Your task to perform on an android device: Go to accessibility settings Image 0: 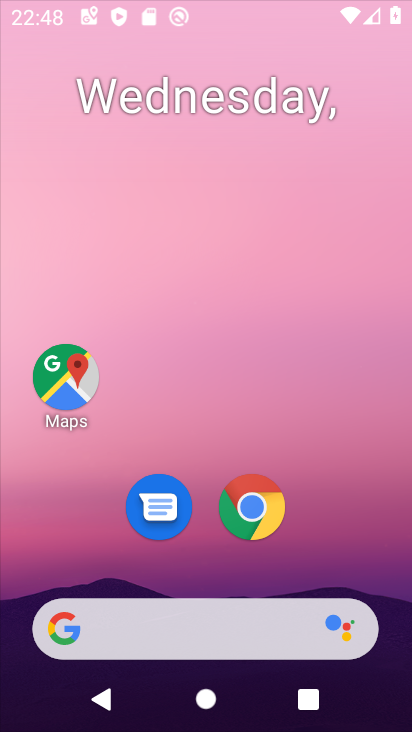
Step 0: click (330, 291)
Your task to perform on an android device: Go to accessibility settings Image 1: 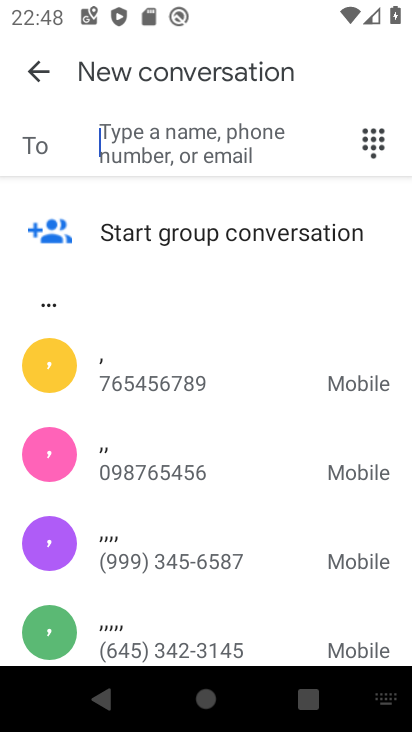
Step 1: press home button
Your task to perform on an android device: Go to accessibility settings Image 2: 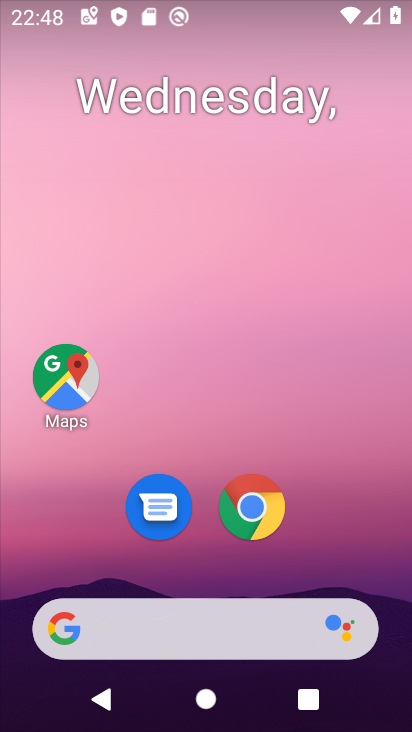
Step 2: drag from (300, 492) to (302, 249)
Your task to perform on an android device: Go to accessibility settings Image 3: 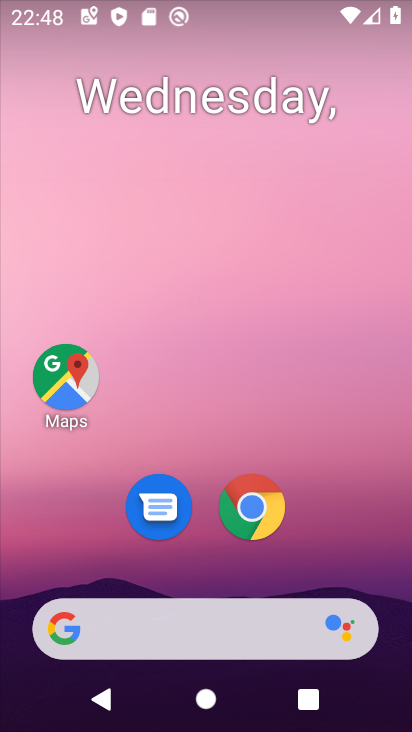
Step 3: drag from (259, 460) to (277, 244)
Your task to perform on an android device: Go to accessibility settings Image 4: 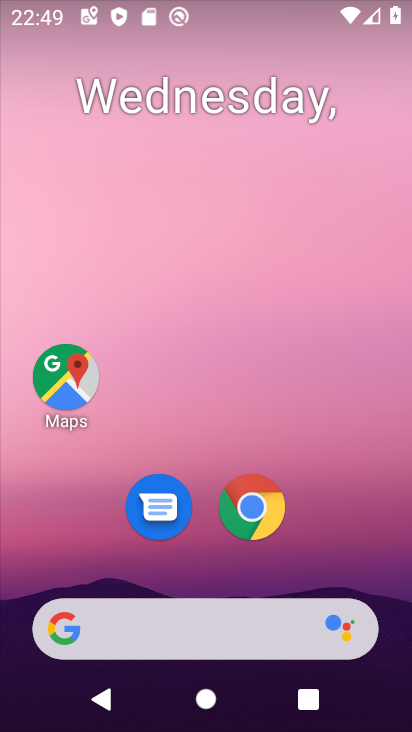
Step 4: drag from (220, 547) to (220, 301)
Your task to perform on an android device: Go to accessibility settings Image 5: 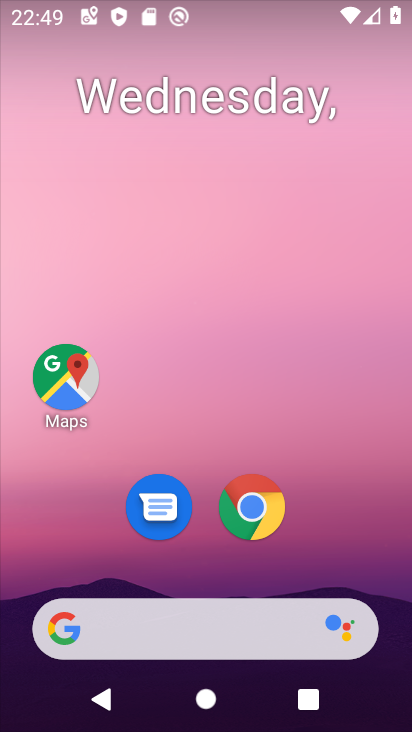
Step 5: drag from (194, 442) to (206, 288)
Your task to perform on an android device: Go to accessibility settings Image 6: 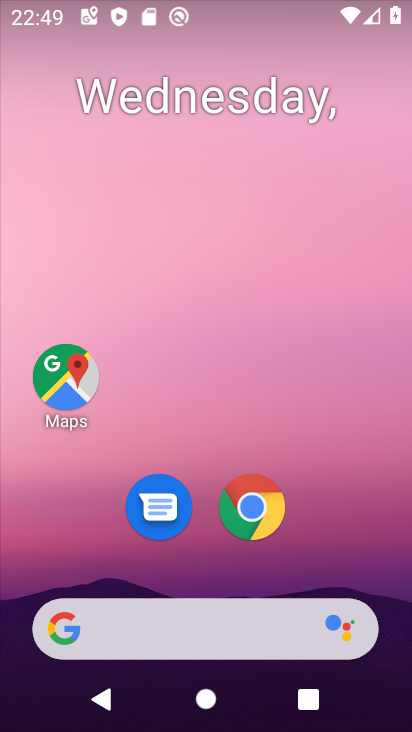
Step 6: drag from (215, 651) to (233, 284)
Your task to perform on an android device: Go to accessibility settings Image 7: 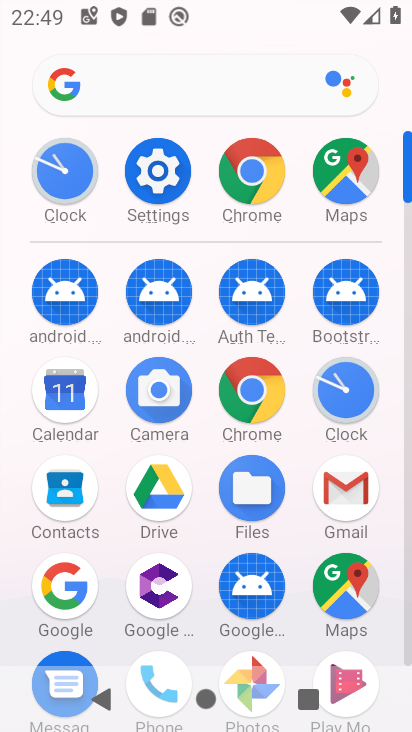
Step 7: click (162, 155)
Your task to perform on an android device: Go to accessibility settings Image 8: 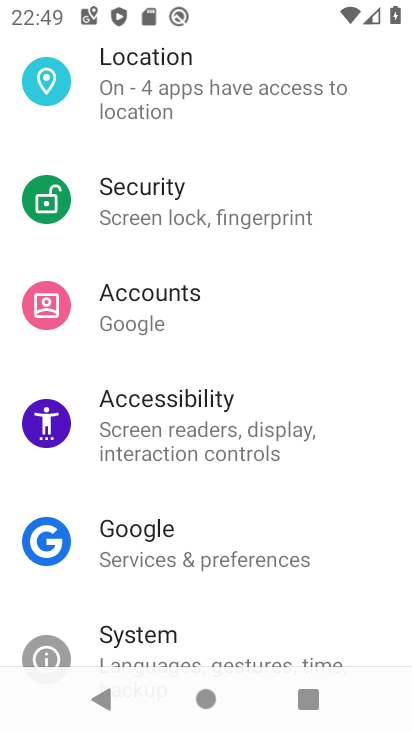
Step 8: drag from (289, 546) to (278, 254)
Your task to perform on an android device: Go to accessibility settings Image 9: 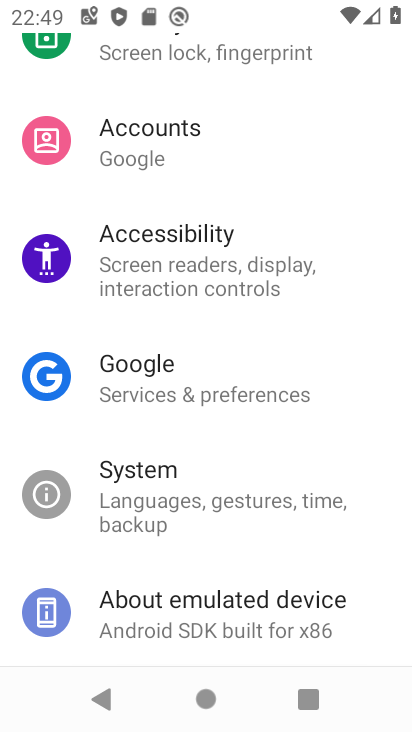
Step 9: click (198, 264)
Your task to perform on an android device: Go to accessibility settings Image 10: 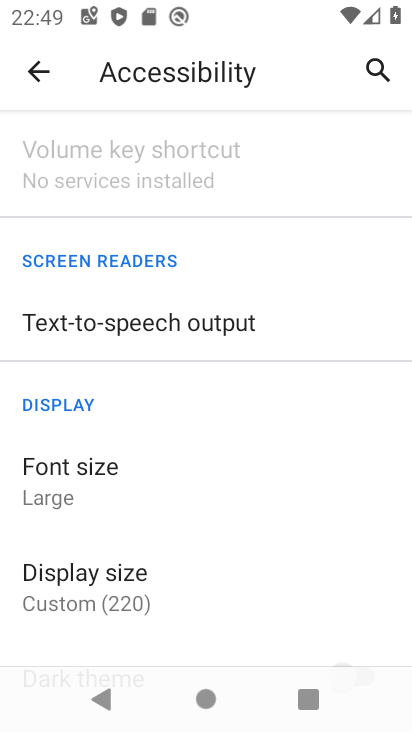
Step 10: task complete